Your task to perform on an android device: Go to Amazon Image 0: 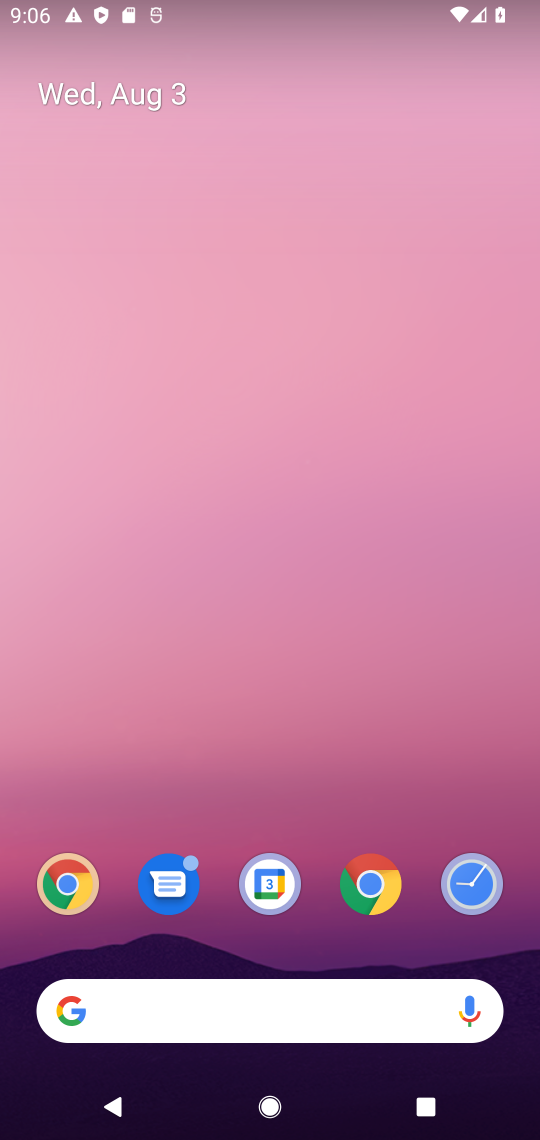
Step 0: press home button
Your task to perform on an android device: Go to Amazon Image 1: 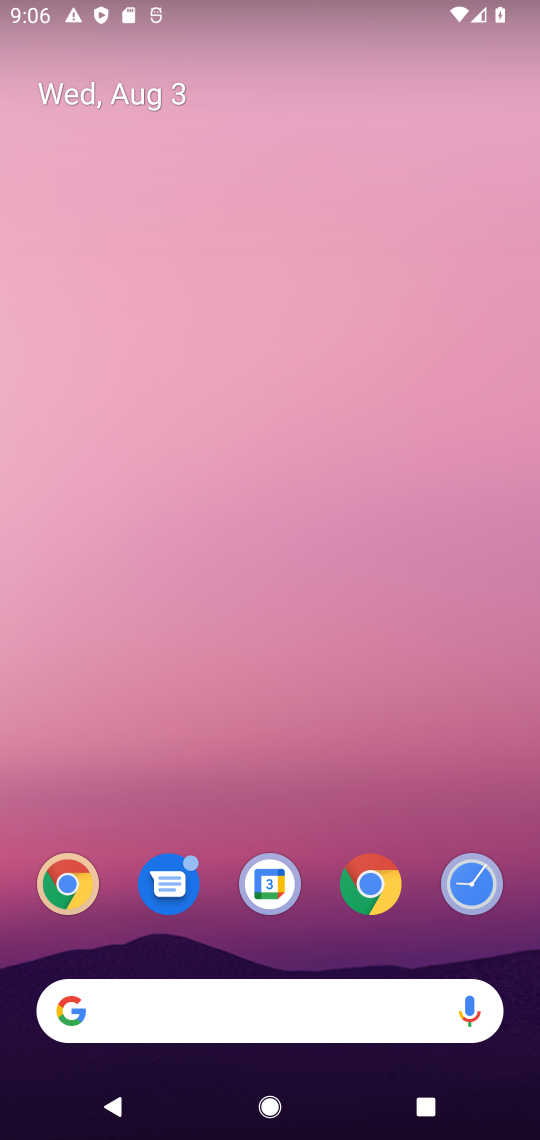
Step 1: drag from (352, 916) to (367, 49)
Your task to perform on an android device: Go to Amazon Image 2: 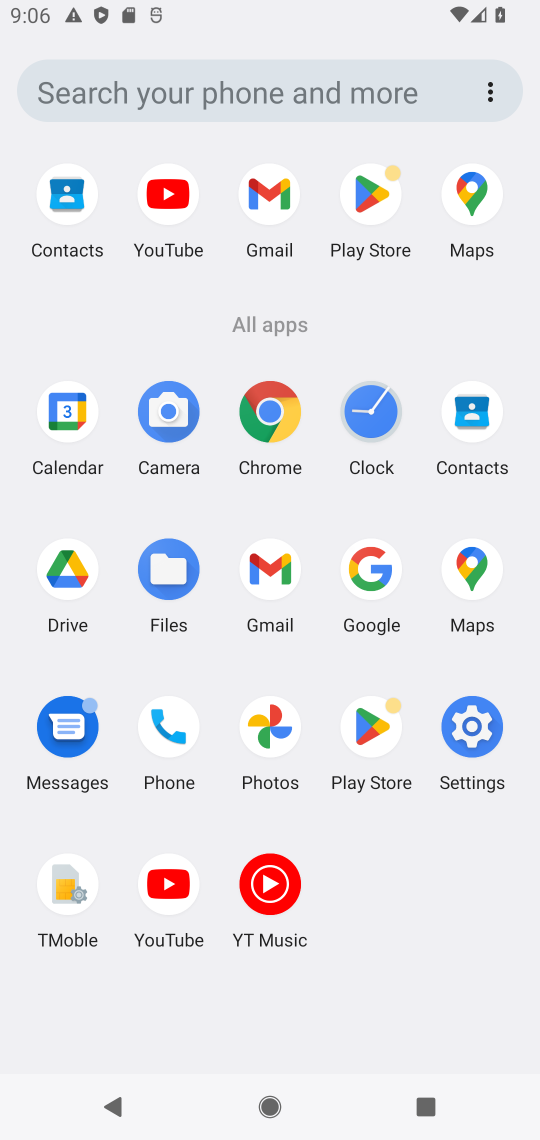
Step 2: click (291, 441)
Your task to perform on an android device: Go to Amazon Image 3: 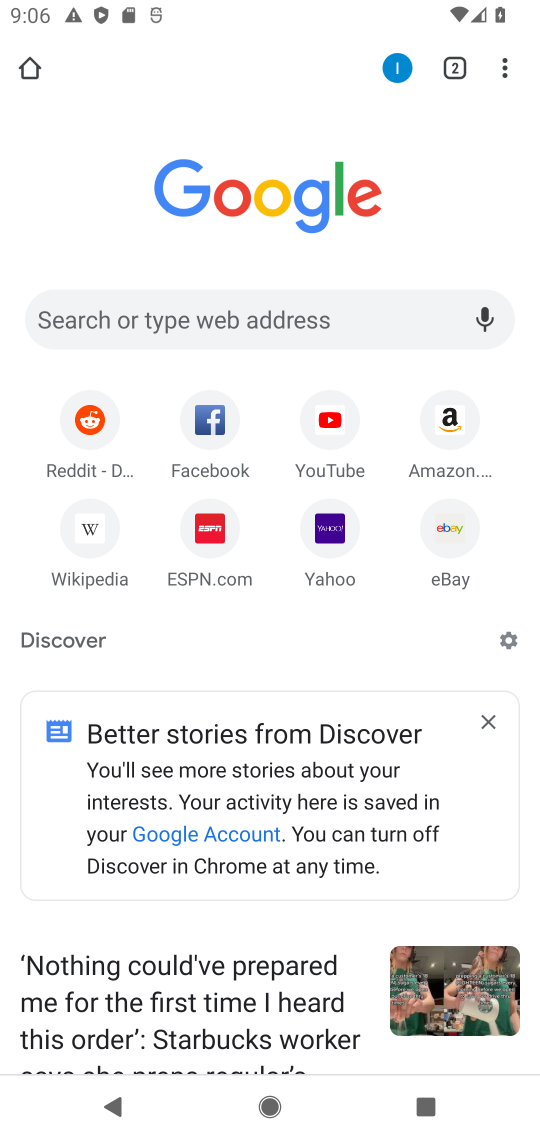
Step 3: click (428, 432)
Your task to perform on an android device: Go to Amazon Image 4: 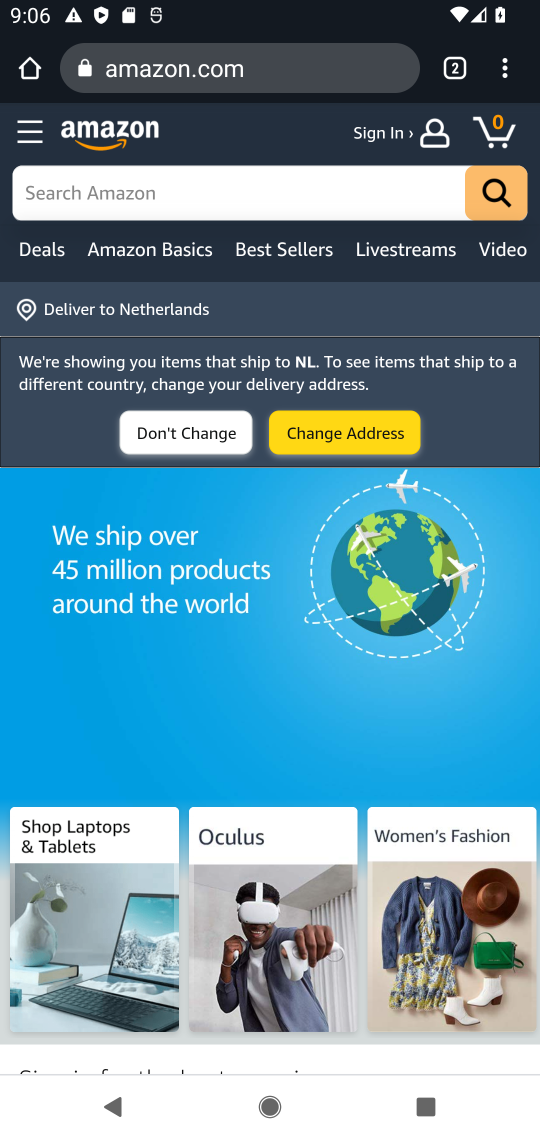
Step 4: task complete